Your task to perform on an android device: toggle notification dots Image 0: 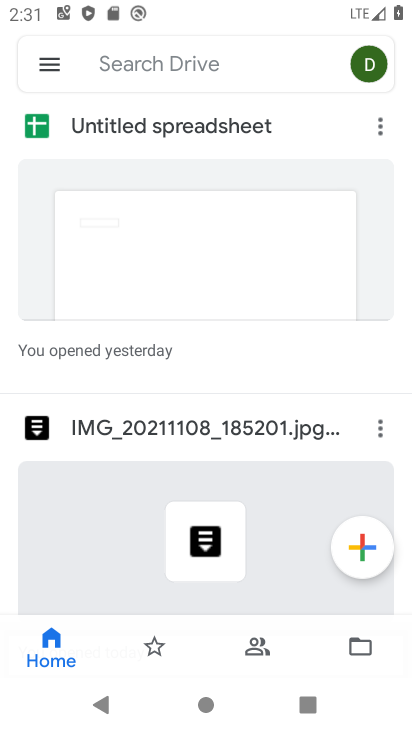
Step 0: press home button
Your task to perform on an android device: toggle notification dots Image 1: 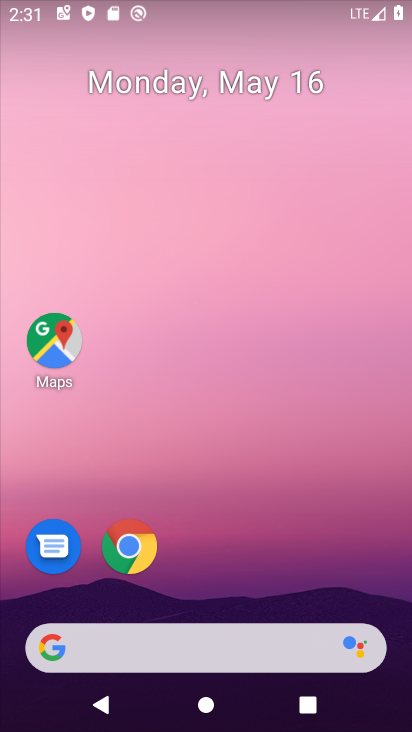
Step 1: drag from (297, 654) to (217, 203)
Your task to perform on an android device: toggle notification dots Image 2: 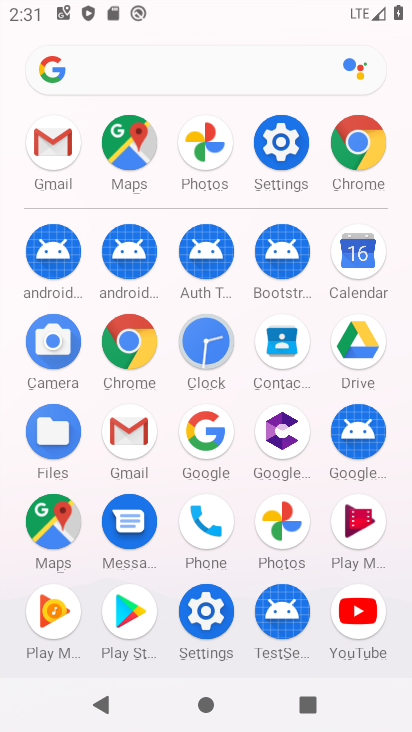
Step 2: click (250, 140)
Your task to perform on an android device: toggle notification dots Image 3: 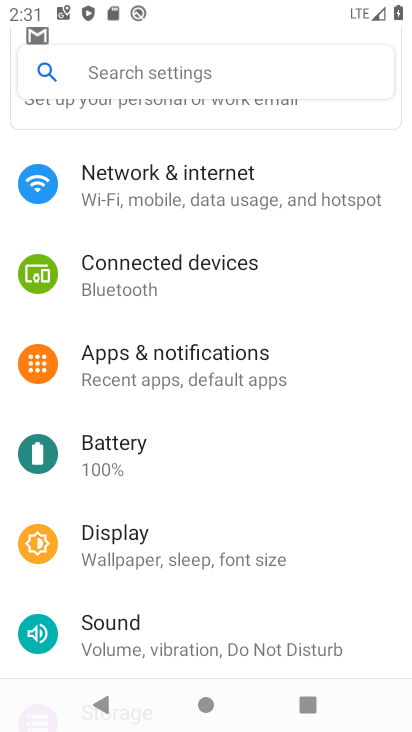
Step 3: click (138, 70)
Your task to perform on an android device: toggle notification dots Image 4: 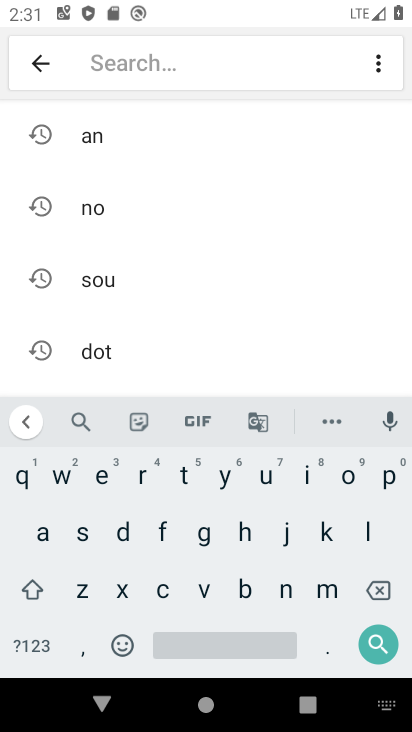
Step 4: click (97, 359)
Your task to perform on an android device: toggle notification dots Image 5: 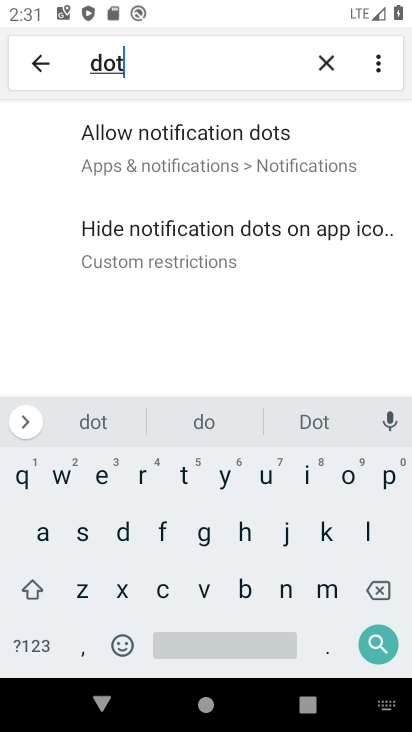
Step 5: click (218, 161)
Your task to perform on an android device: toggle notification dots Image 6: 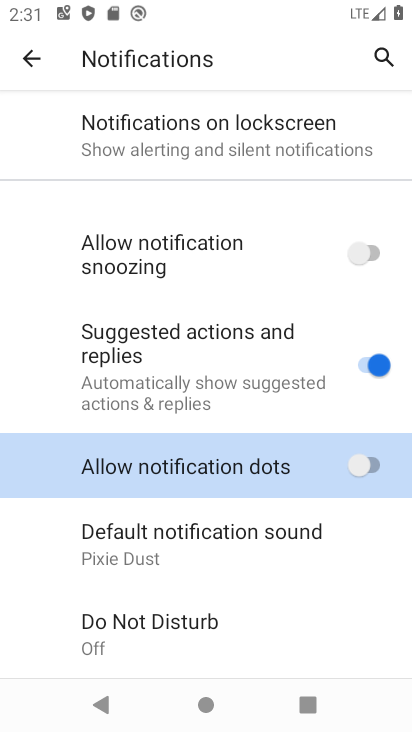
Step 6: task complete